Your task to perform on an android device: Open Chrome and go to settings Image 0: 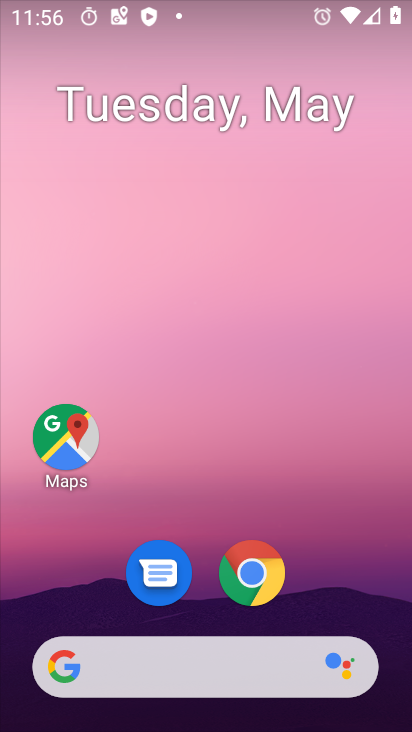
Step 0: drag from (257, 703) to (262, 342)
Your task to perform on an android device: Open Chrome and go to settings Image 1: 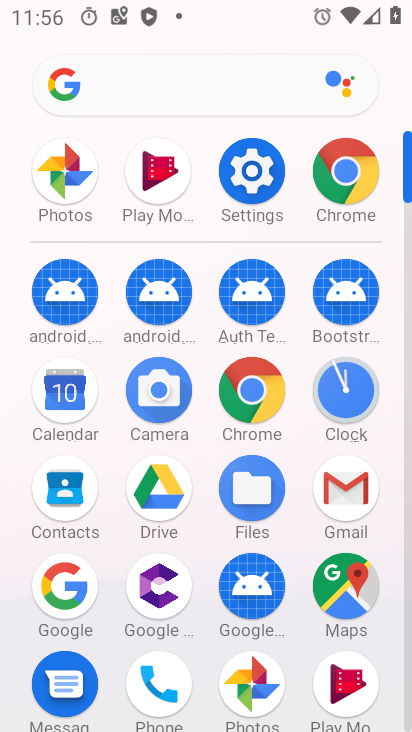
Step 1: click (362, 173)
Your task to perform on an android device: Open Chrome and go to settings Image 2: 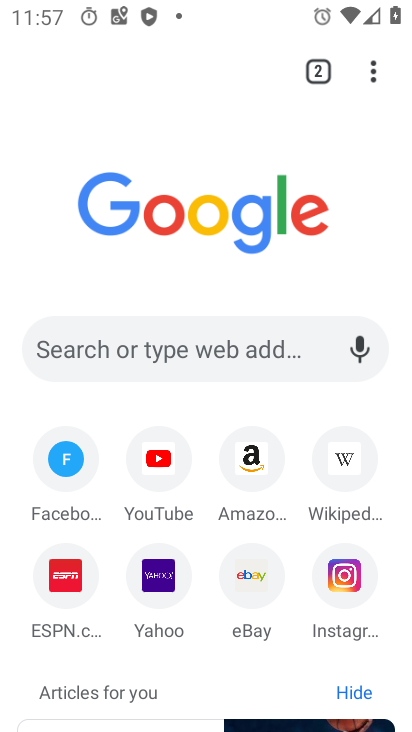
Step 2: click (363, 97)
Your task to perform on an android device: Open Chrome and go to settings Image 3: 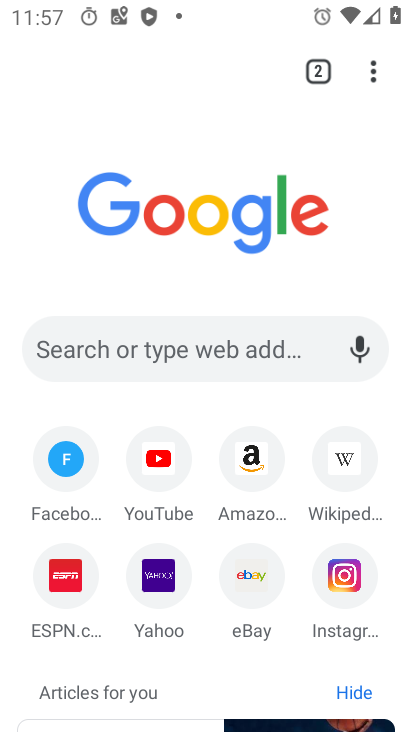
Step 3: click (387, 89)
Your task to perform on an android device: Open Chrome and go to settings Image 4: 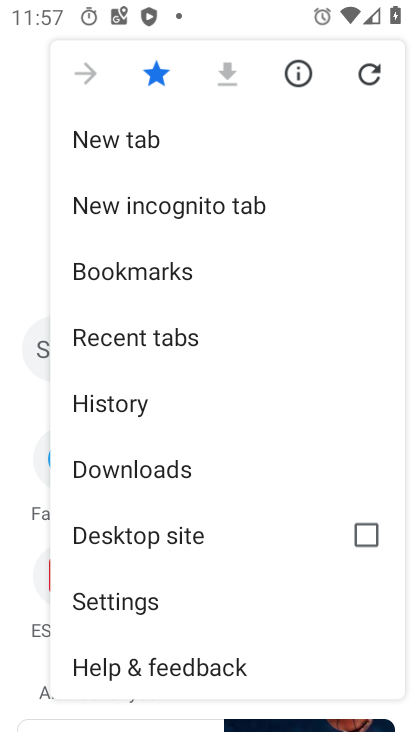
Step 4: click (143, 608)
Your task to perform on an android device: Open Chrome and go to settings Image 5: 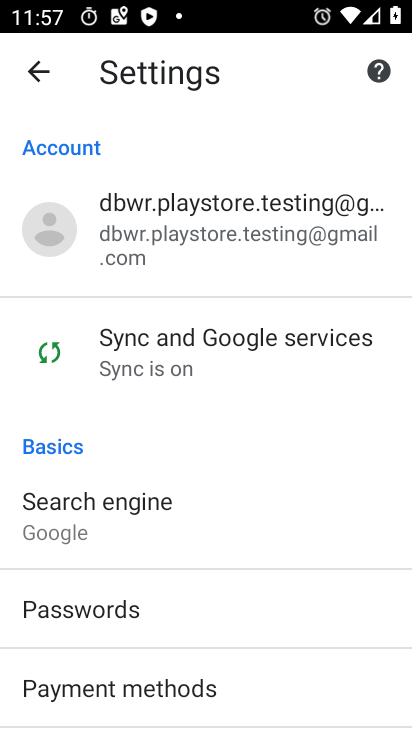
Step 5: task complete